Your task to perform on an android device: turn off priority inbox in the gmail app Image 0: 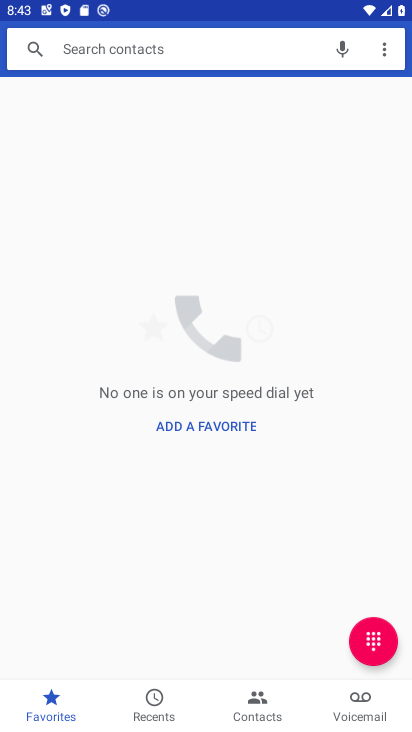
Step 0: press home button
Your task to perform on an android device: turn off priority inbox in the gmail app Image 1: 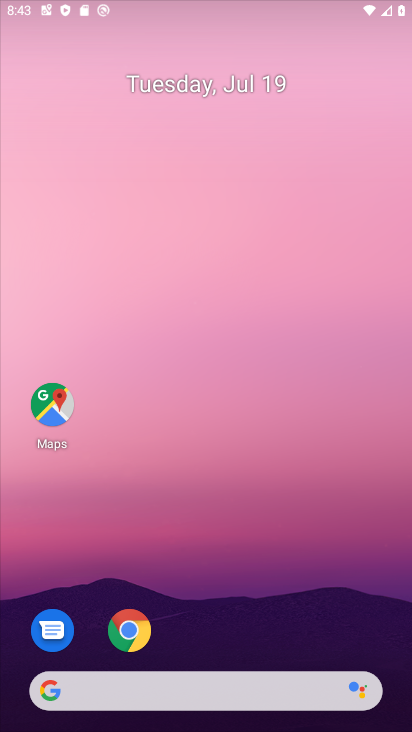
Step 1: drag from (203, 650) to (262, 121)
Your task to perform on an android device: turn off priority inbox in the gmail app Image 2: 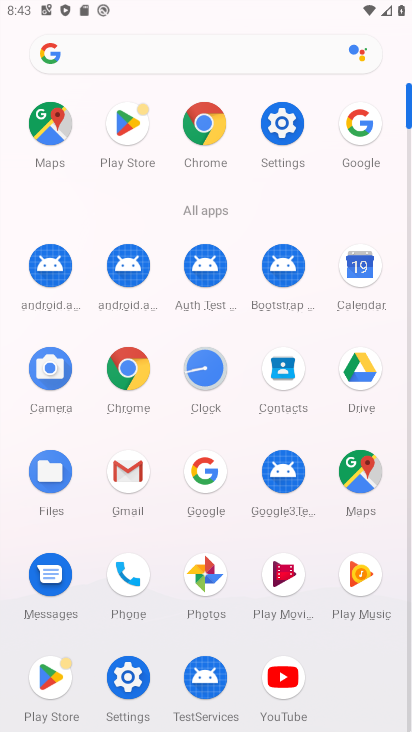
Step 2: click (127, 475)
Your task to perform on an android device: turn off priority inbox in the gmail app Image 3: 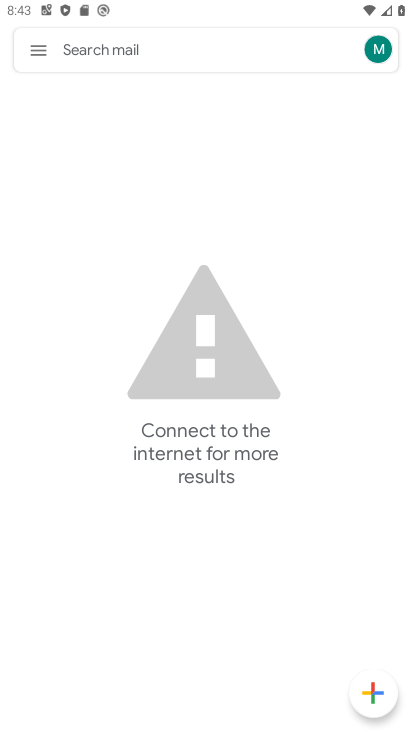
Step 3: click (39, 52)
Your task to perform on an android device: turn off priority inbox in the gmail app Image 4: 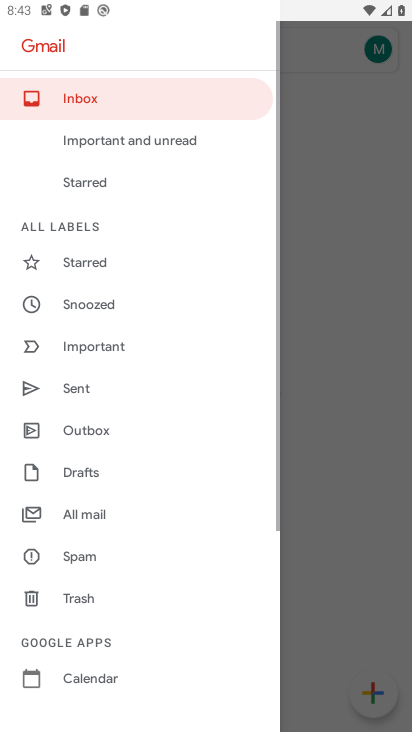
Step 4: drag from (99, 659) to (141, 257)
Your task to perform on an android device: turn off priority inbox in the gmail app Image 5: 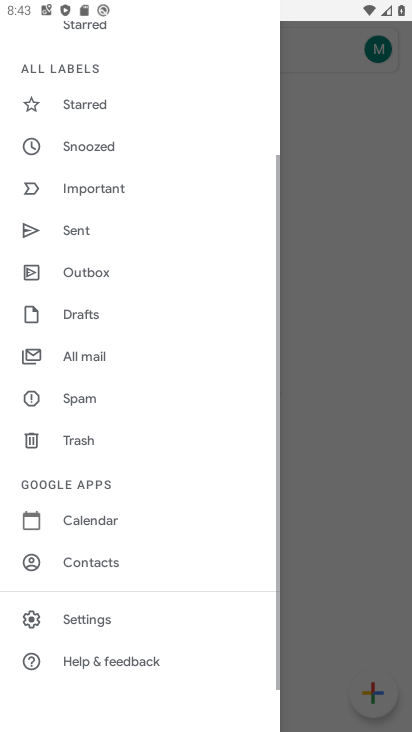
Step 5: click (93, 607)
Your task to perform on an android device: turn off priority inbox in the gmail app Image 6: 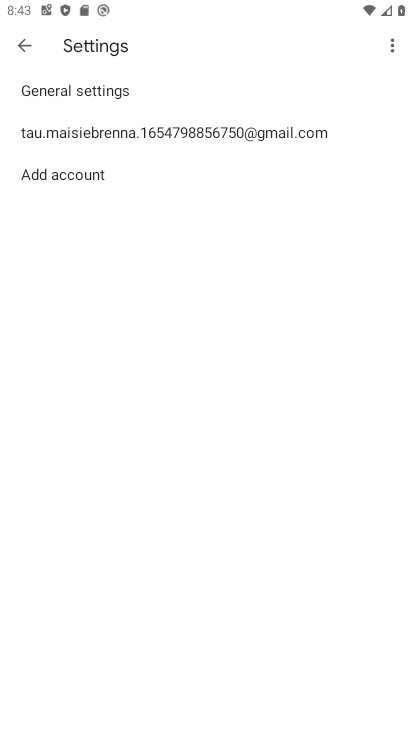
Step 6: click (88, 132)
Your task to perform on an android device: turn off priority inbox in the gmail app Image 7: 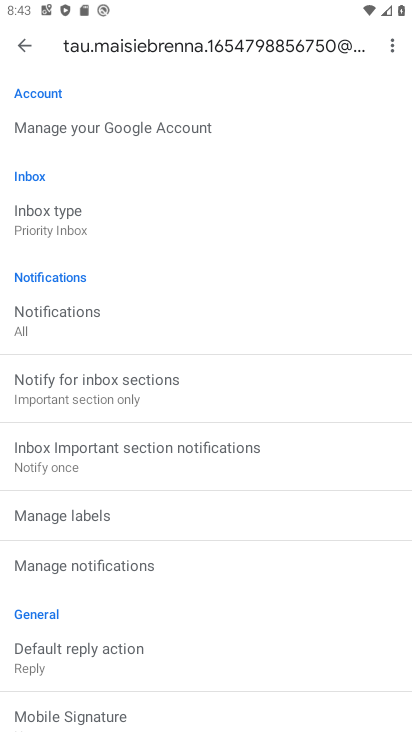
Step 7: click (77, 227)
Your task to perform on an android device: turn off priority inbox in the gmail app Image 8: 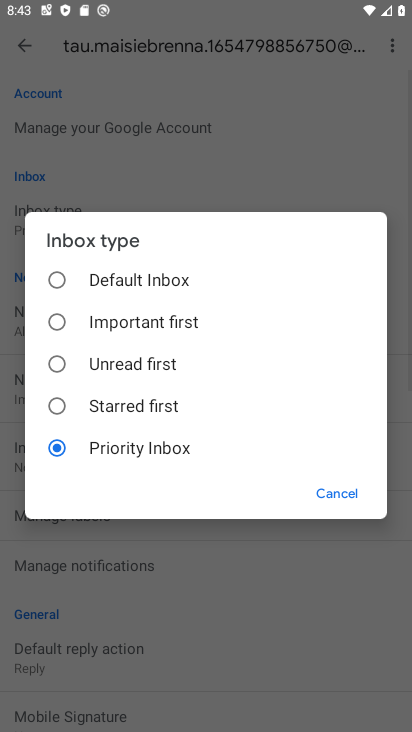
Step 8: click (53, 276)
Your task to perform on an android device: turn off priority inbox in the gmail app Image 9: 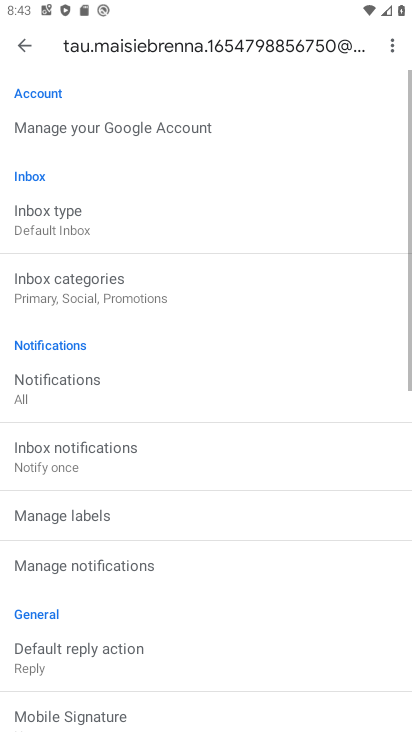
Step 9: task complete